Your task to perform on an android device: turn off javascript in the chrome app Image 0: 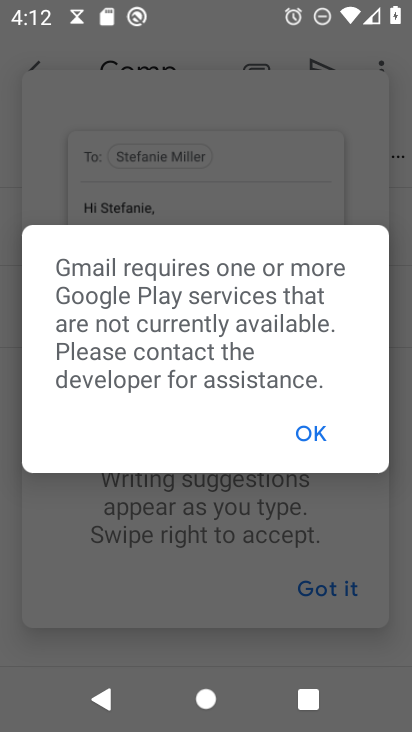
Step 0: press home button
Your task to perform on an android device: turn off javascript in the chrome app Image 1: 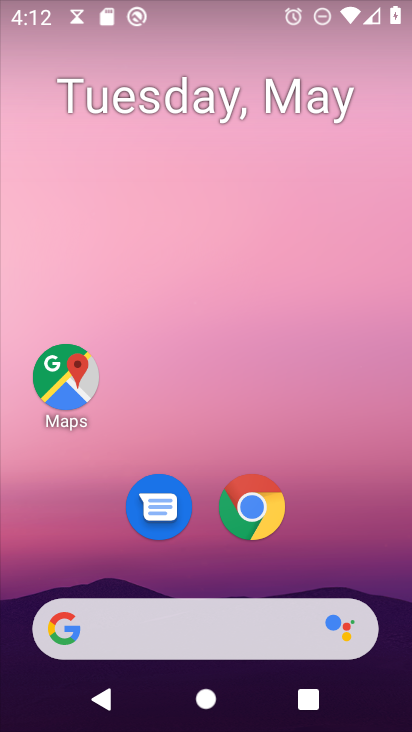
Step 1: click (247, 502)
Your task to perform on an android device: turn off javascript in the chrome app Image 2: 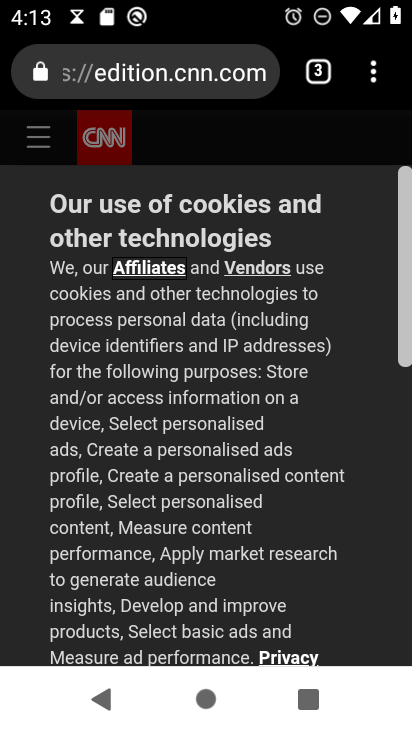
Step 2: click (372, 75)
Your task to perform on an android device: turn off javascript in the chrome app Image 3: 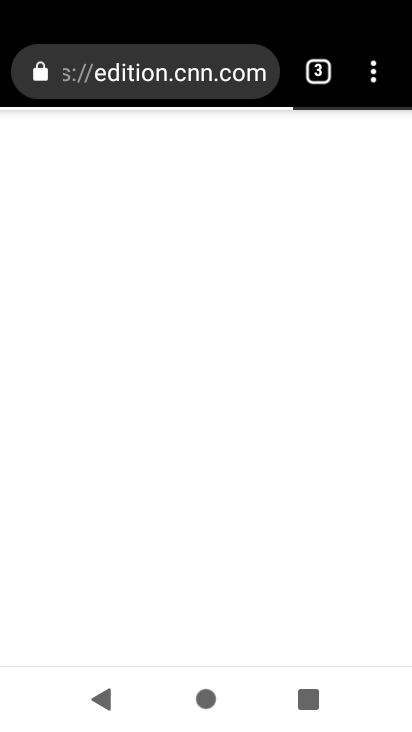
Step 3: click (373, 75)
Your task to perform on an android device: turn off javascript in the chrome app Image 4: 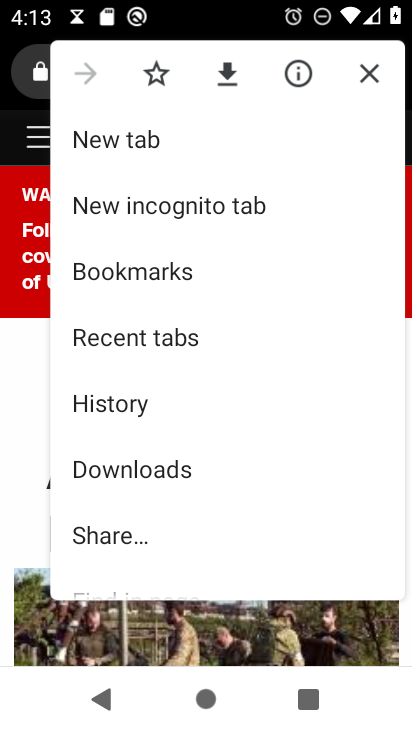
Step 4: drag from (220, 519) to (209, 175)
Your task to perform on an android device: turn off javascript in the chrome app Image 5: 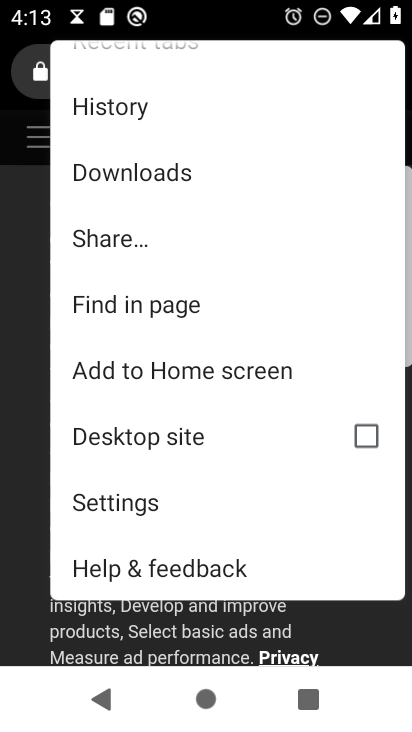
Step 5: click (200, 502)
Your task to perform on an android device: turn off javascript in the chrome app Image 6: 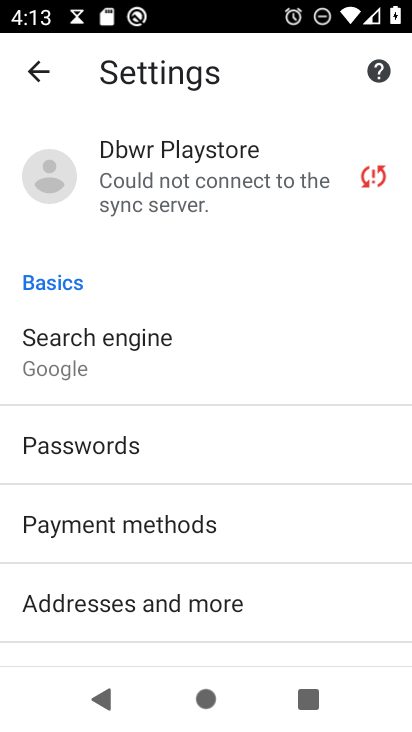
Step 6: drag from (151, 602) to (131, 329)
Your task to perform on an android device: turn off javascript in the chrome app Image 7: 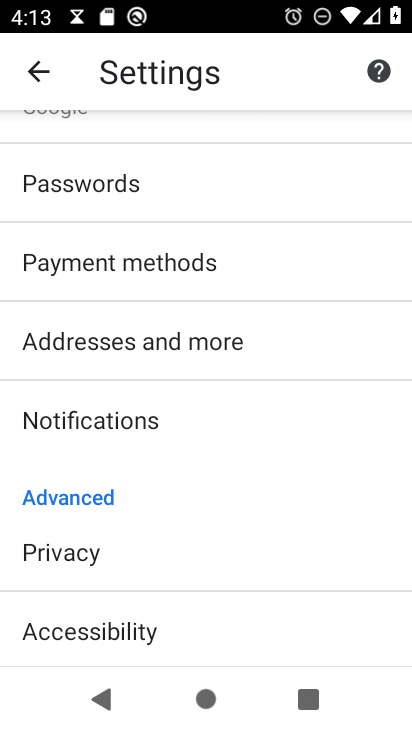
Step 7: drag from (169, 612) to (133, 351)
Your task to perform on an android device: turn off javascript in the chrome app Image 8: 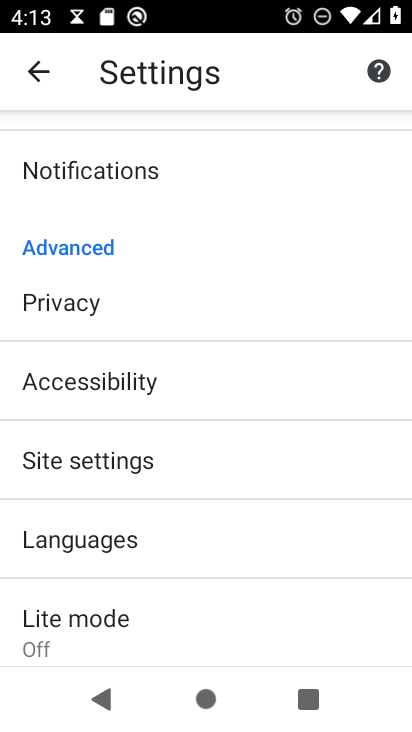
Step 8: click (108, 471)
Your task to perform on an android device: turn off javascript in the chrome app Image 9: 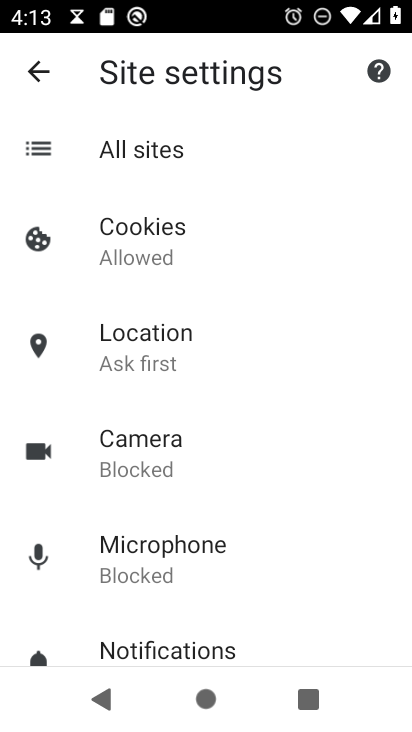
Step 9: drag from (182, 596) to (195, 348)
Your task to perform on an android device: turn off javascript in the chrome app Image 10: 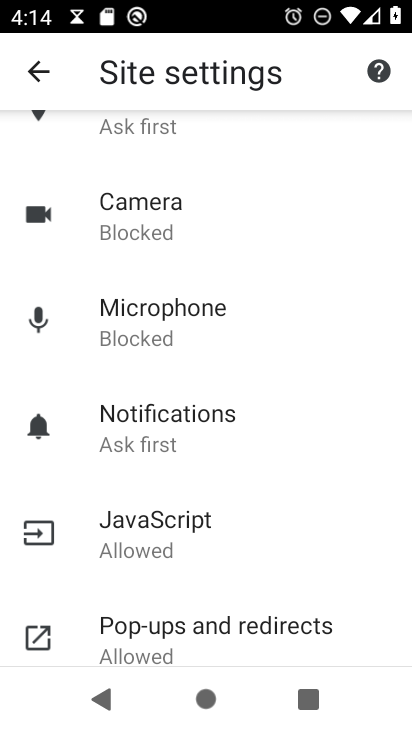
Step 10: click (159, 548)
Your task to perform on an android device: turn off javascript in the chrome app Image 11: 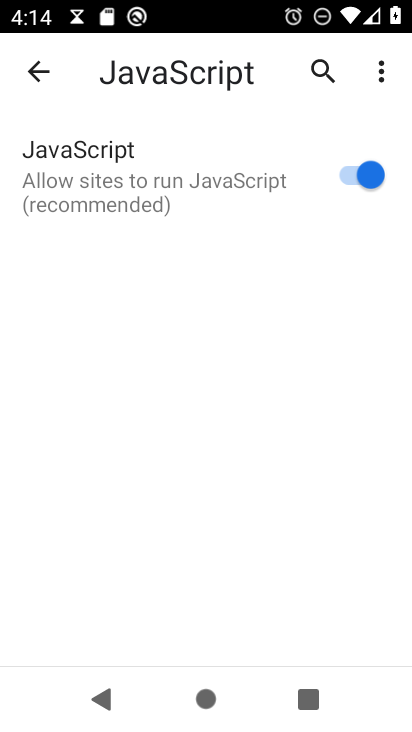
Step 11: click (353, 168)
Your task to perform on an android device: turn off javascript in the chrome app Image 12: 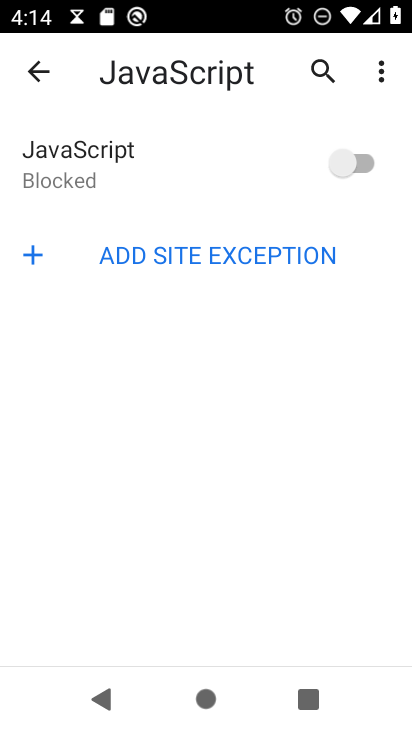
Step 12: task complete